Your task to perform on an android device: Go to Amazon Image 0: 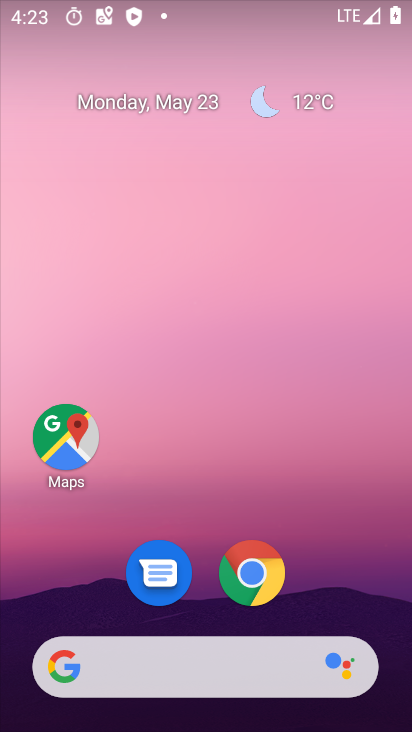
Step 0: click (256, 565)
Your task to perform on an android device: Go to Amazon Image 1: 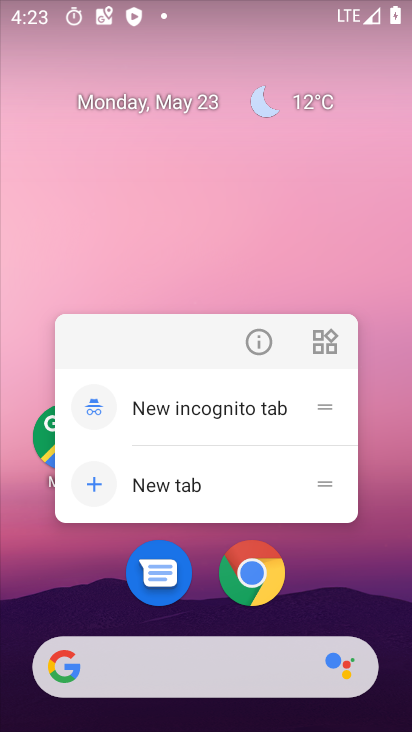
Step 1: click (273, 556)
Your task to perform on an android device: Go to Amazon Image 2: 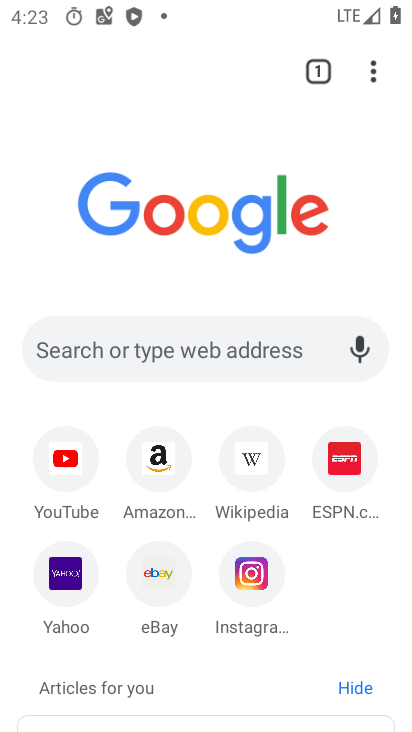
Step 2: click (169, 456)
Your task to perform on an android device: Go to Amazon Image 3: 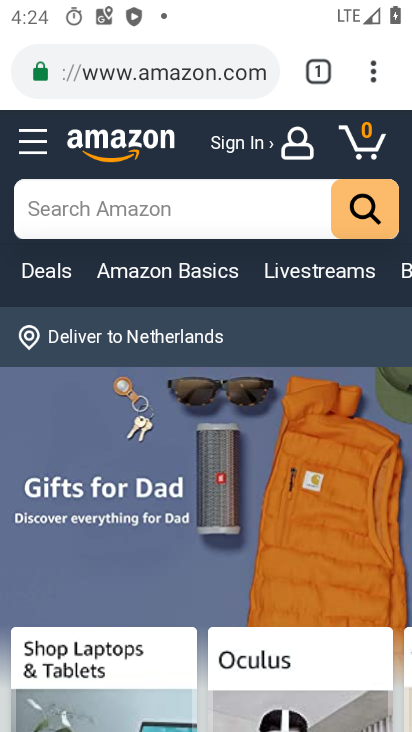
Step 3: task complete